Your task to perform on an android device: change notifications settings Image 0: 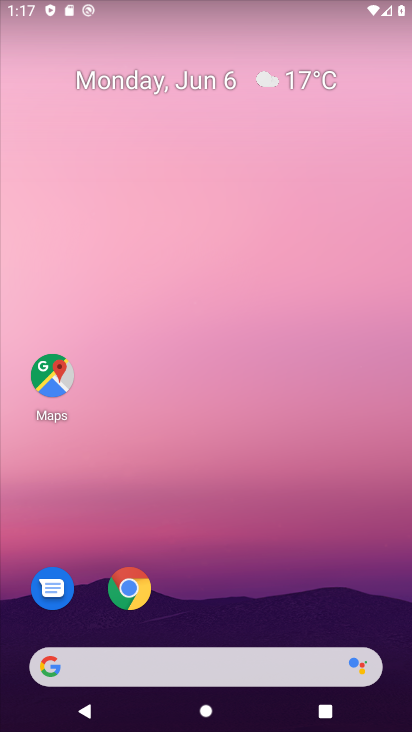
Step 0: drag from (278, 714) to (265, 46)
Your task to perform on an android device: change notifications settings Image 1: 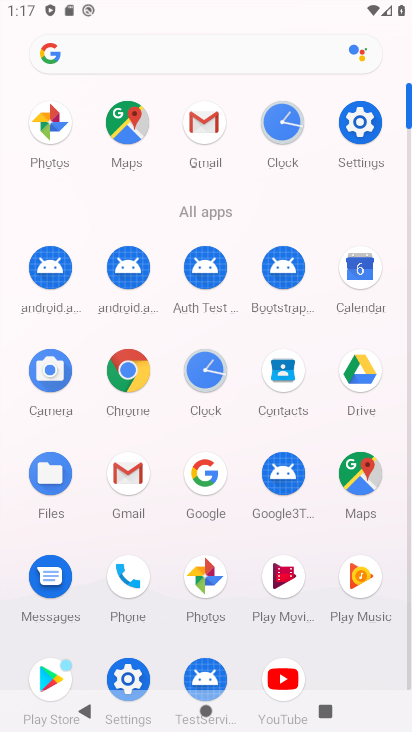
Step 1: click (367, 131)
Your task to perform on an android device: change notifications settings Image 2: 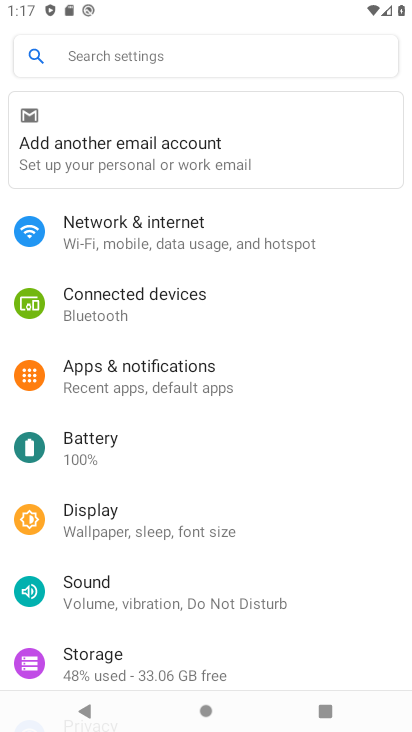
Step 2: click (170, 367)
Your task to perform on an android device: change notifications settings Image 3: 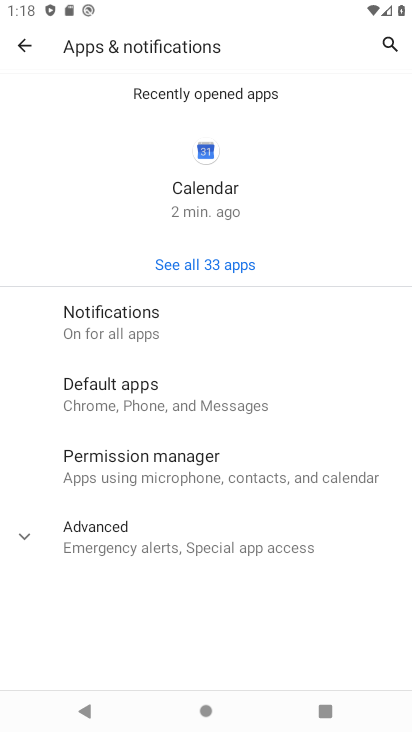
Step 3: click (250, 300)
Your task to perform on an android device: change notifications settings Image 4: 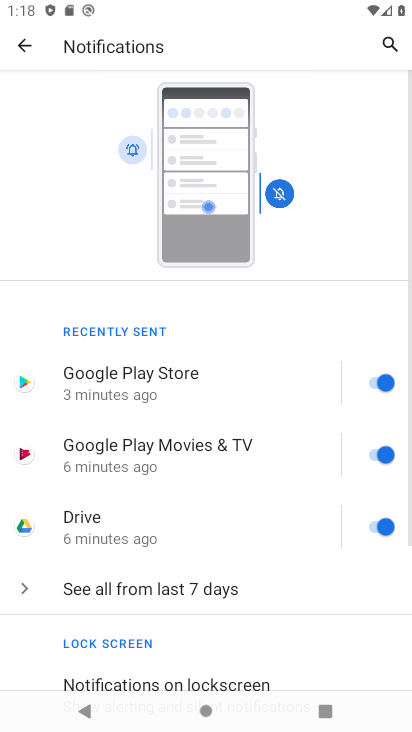
Step 4: click (391, 377)
Your task to perform on an android device: change notifications settings Image 5: 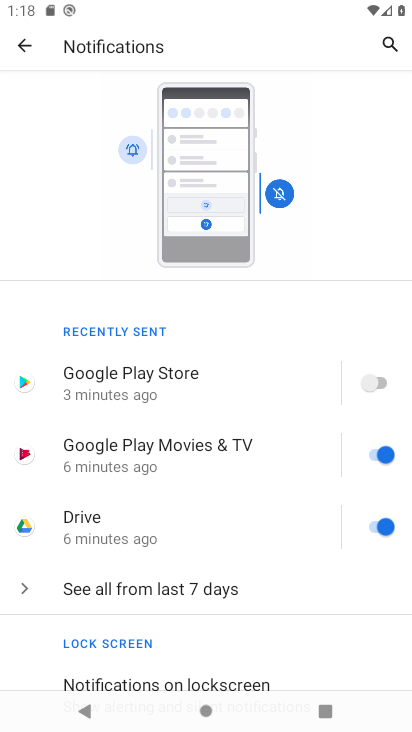
Step 5: task complete